Your task to perform on an android device: Go to CNN.com Image 0: 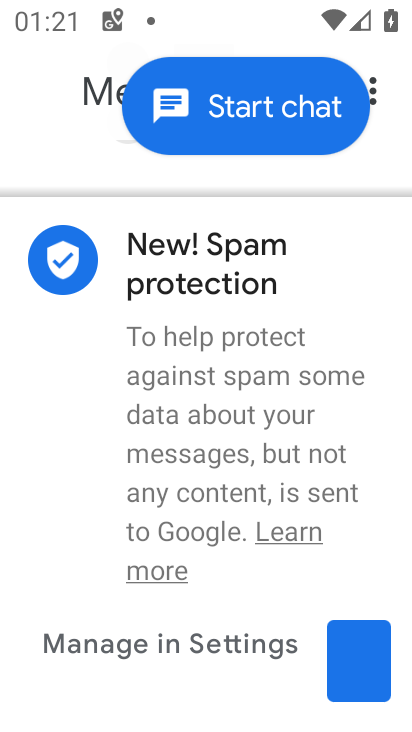
Step 0: press home button
Your task to perform on an android device: Go to CNN.com Image 1: 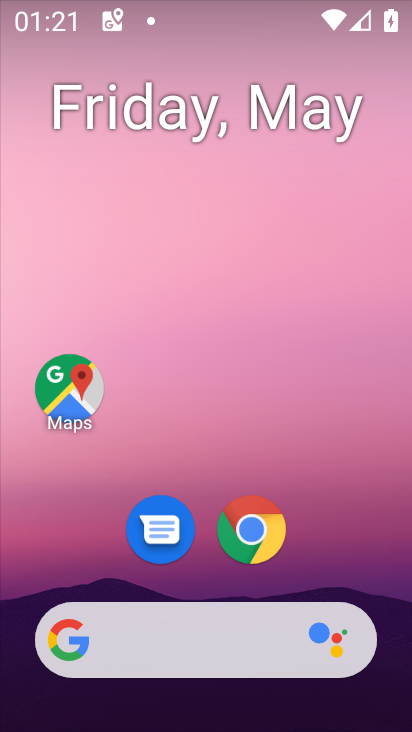
Step 1: drag from (301, 519) to (296, 306)
Your task to perform on an android device: Go to CNN.com Image 2: 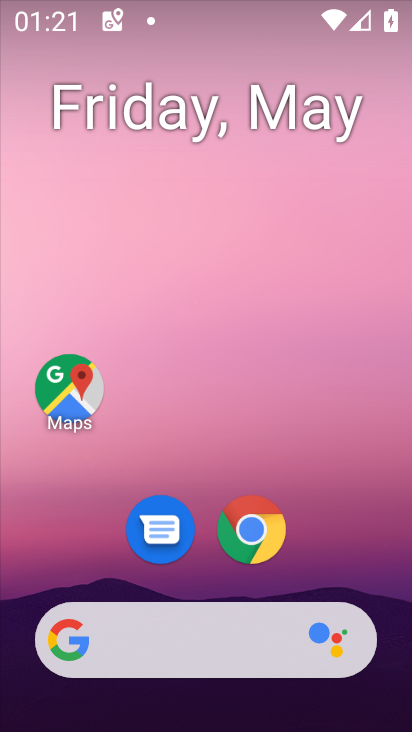
Step 2: drag from (266, 467) to (266, 332)
Your task to perform on an android device: Go to CNN.com Image 3: 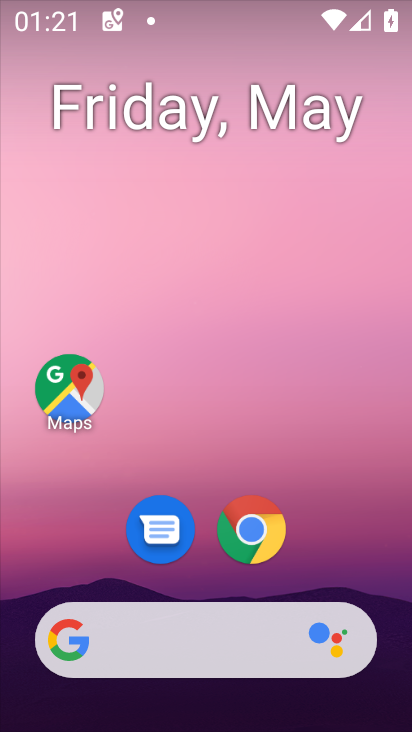
Step 3: drag from (225, 510) to (263, 205)
Your task to perform on an android device: Go to CNN.com Image 4: 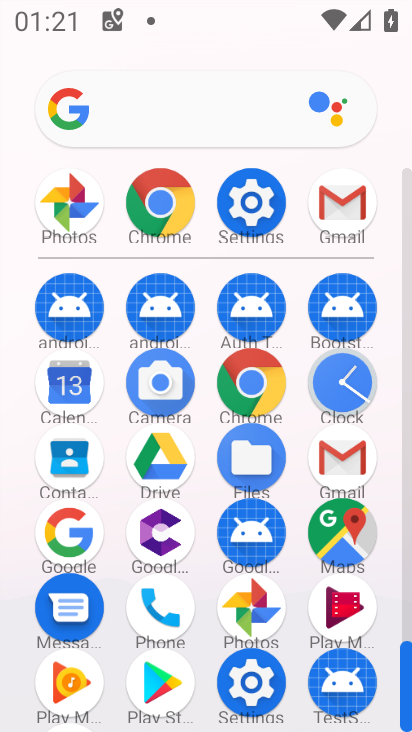
Step 4: click (165, 196)
Your task to perform on an android device: Go to CNN.com Image 5: 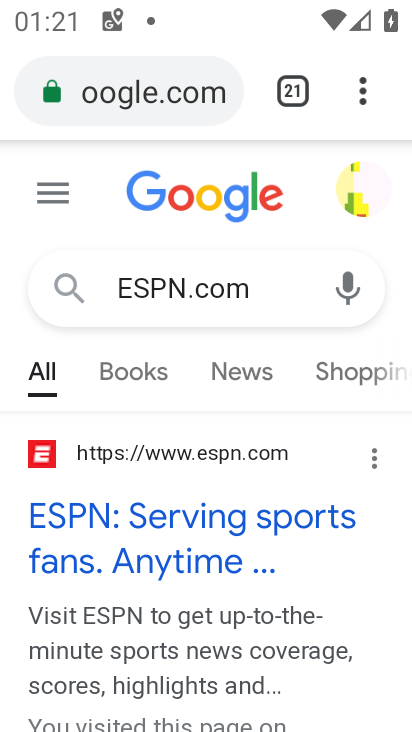
Step 5: click (352, 96)
Your task to perform on an android device: Go to CNN.com Image 6: 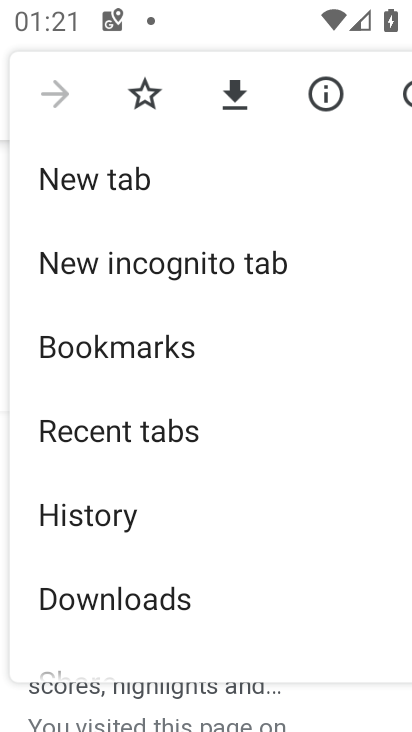
Step 6: click (45, 88)
Your task to perform on an android device: Go to CNN.com Image 7: 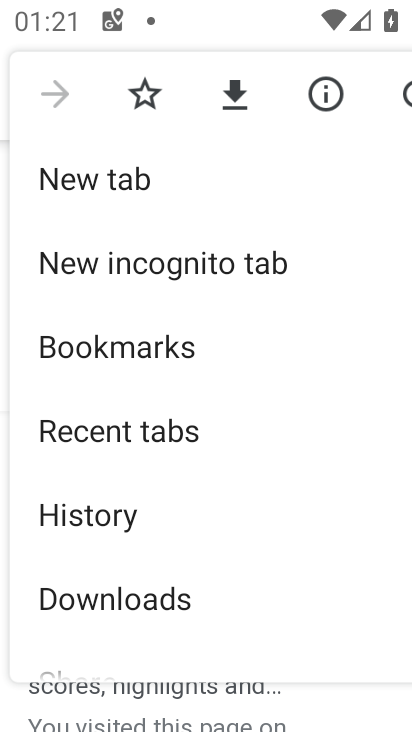
Step 7: click (118, 164)
Your task to perform on an android device: Go to CNN.com Image 8: 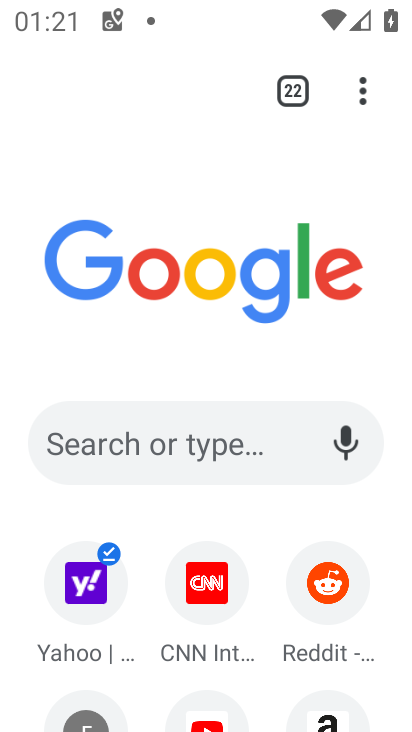
Step 8: click (193, 591)
Your task to perform on an android device: Go to CNN.com Image 9: 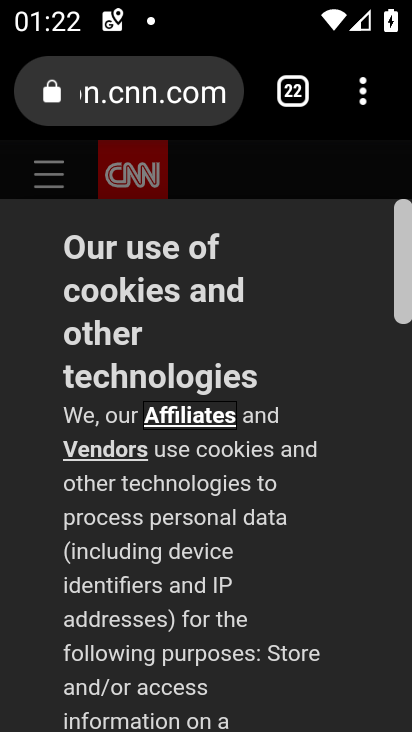
Step 9: task complete